Your task to perform on an android device: turn off priority inbox in the gmail app Image 0: 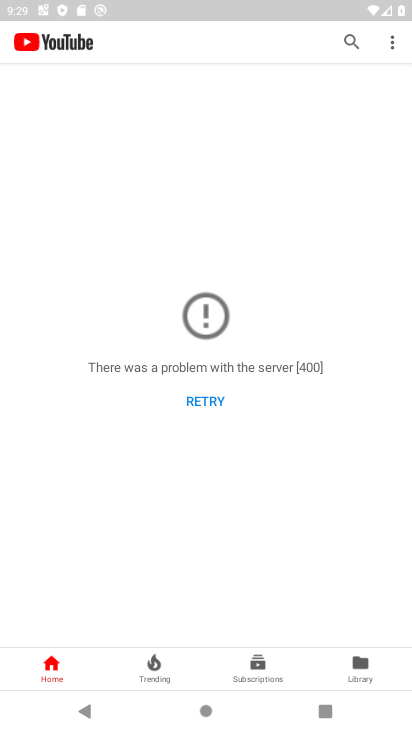
Step 0: press home button
Your task to perform on an android device: turn off priority inbox in the gmail app Image 1: 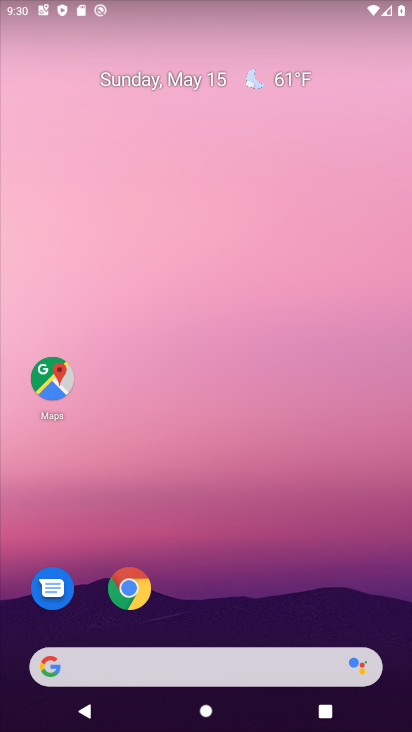
Step 1: drag from (206, 598) to (239, 300)
Your task to perform on an android device: turn off priority inbox in the gmail app Image 2: 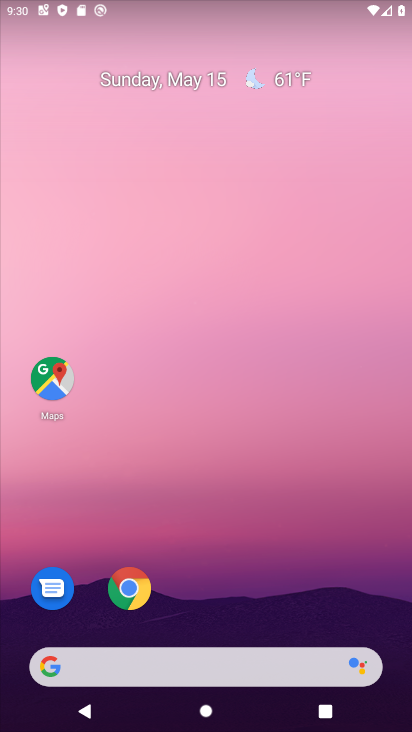
Step 2: drag from (219, 625) to (193, 2)
Your task to perform on an android device: turn off priority inbox in the gmail app Image 3: 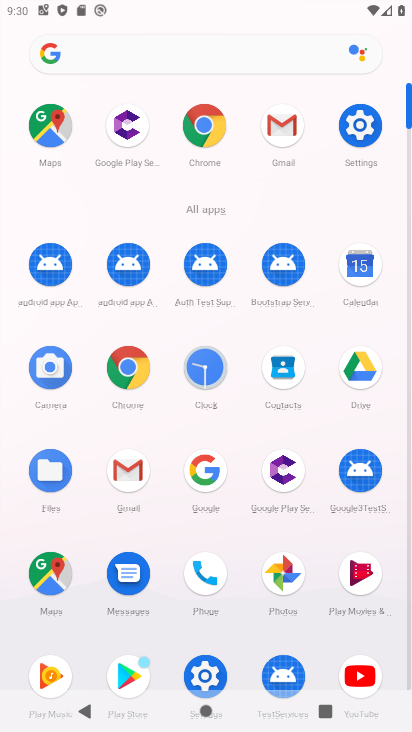
Step 3: click (130, 483)
Your task to perform on an android device: turn off priority inbox in the gmail app Image 4: 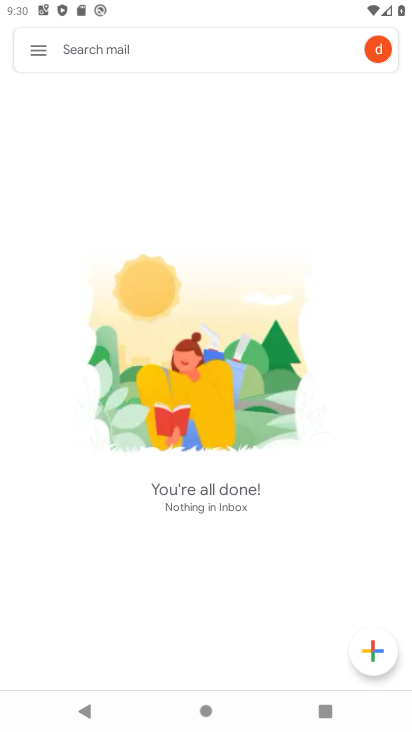
Step 4: click (52, 53)
Your task to perform on an android device: turn off priority inbox in the gmail app Image 5: 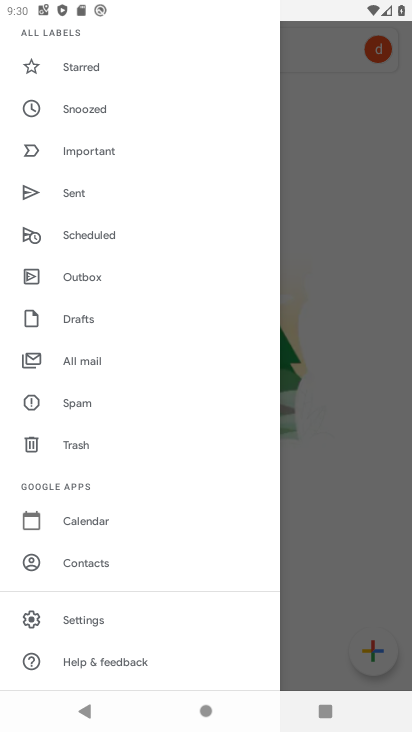
Step 5: click (93, 619)
Your task to perform on an android device: turn off priority inbox in the gmail app Image 6: 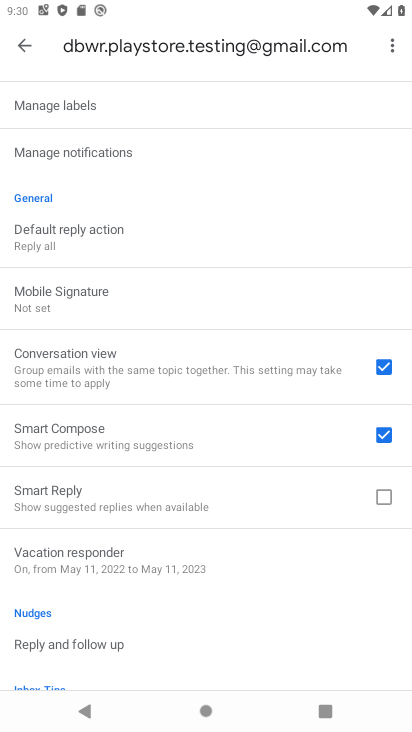
Step 6: drag from (72, 195) to (62, 505)
Your task to perform on an android device: turn off priority inbox in the gmail app Image 7: 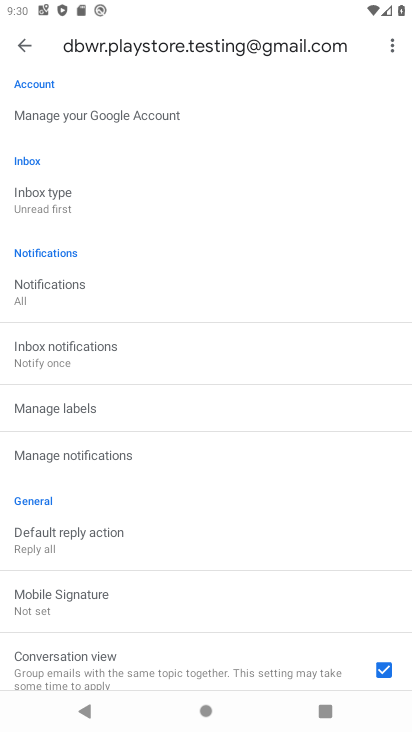
Step 7: click (70, 192)
Your task to perform on an android device: turn off priority inbox in the gmail app Image 8: 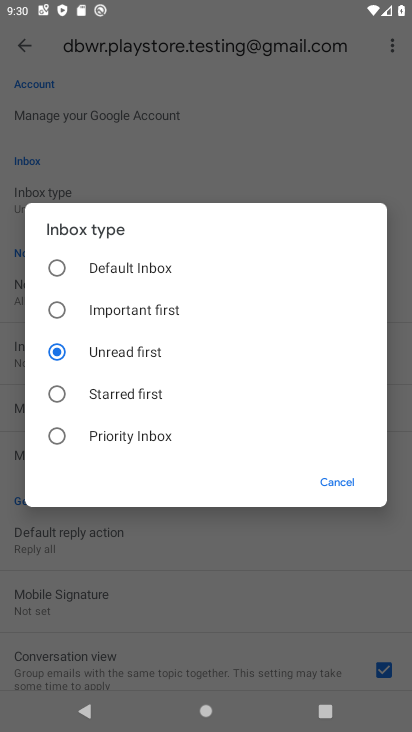
Step 8: click (74, 261)
Your task to perform on an android device: turn off priority inbox in the gmail app Image 9: 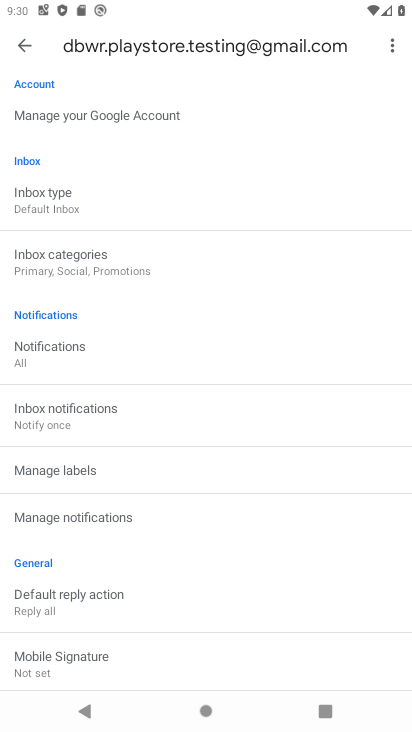
Step 9: task complete